Your task to perform on an android device: Open calendar and show me the third week of next month Image 0: 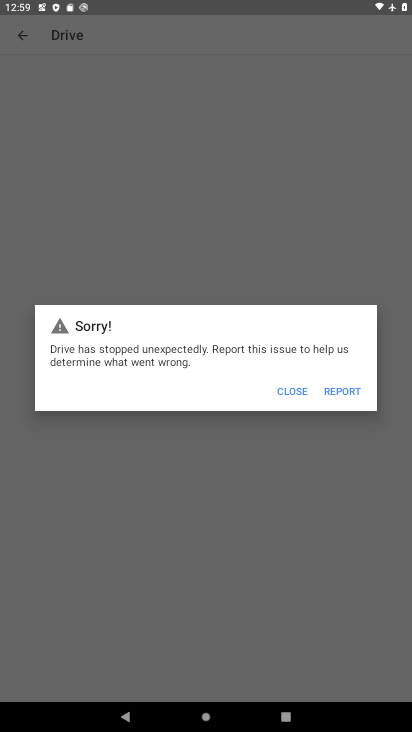
Step 0: task complete